Your task to perform on an android device: Do I have any events this weekend? Image 0: 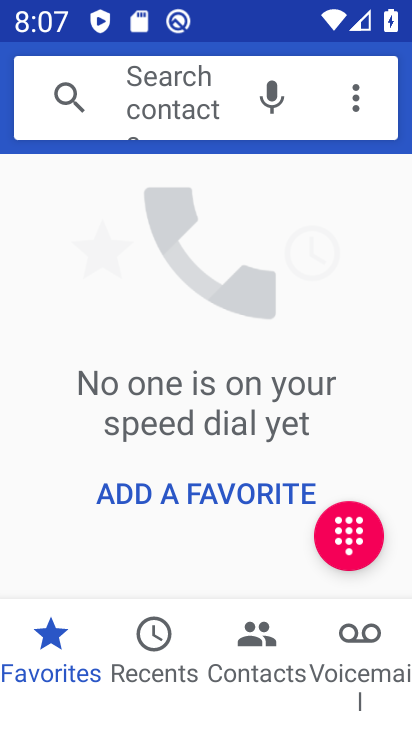
Step 0: press home button
Your task to perform on an android device: Do I have any events this weekend? Image 1: 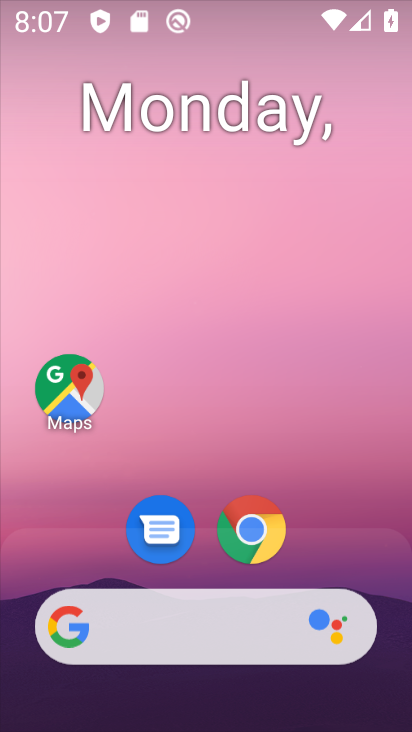
Step 1: drag from (208, 612) to (126, 31)
Your task to perform on an android device: Do I have any events this weekend? Image 2: 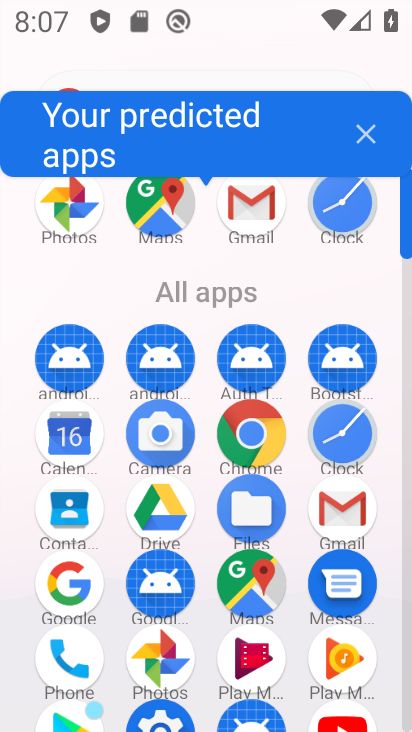
Step 2: click (69, 429)
Your task to perform on an android device: Do I have any events this weekend? Image 3: 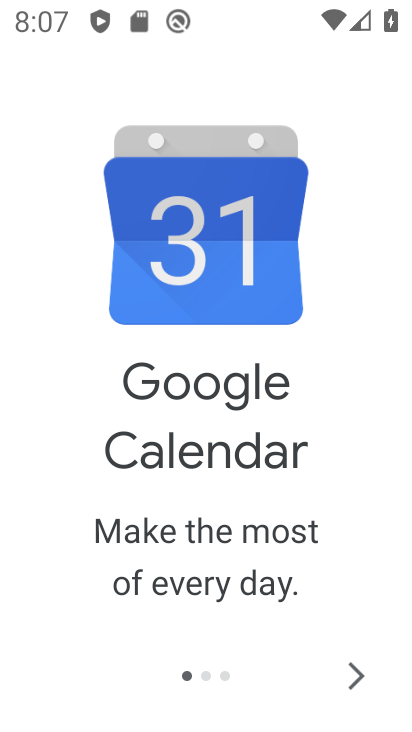
Step 3: click (360, 687)
Your task to perform on an android device: Do I have any events this weekend? Image 4: 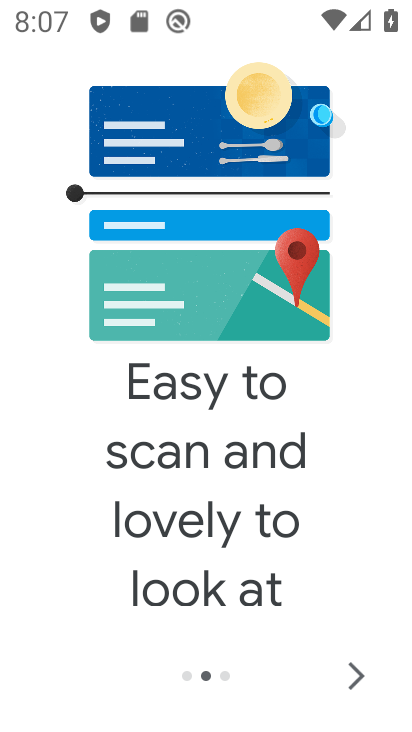
Step 4: click (360, 687)
Your task to perform on an android device: Do I have any events this weekend? Image 5: 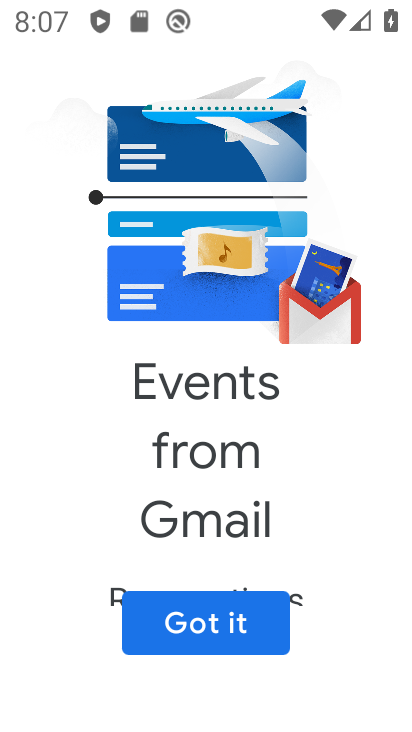
Step 5: click (188, 618)
Your task to perform on an android device: Do I have any events this weekend? Image 6: 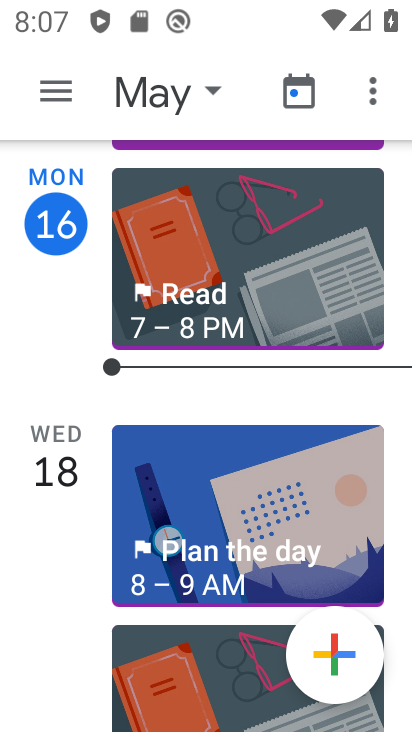
Step 6: click (38, 113)
Your task to perform on an android device: Do I have any events this weekend? Image 7: 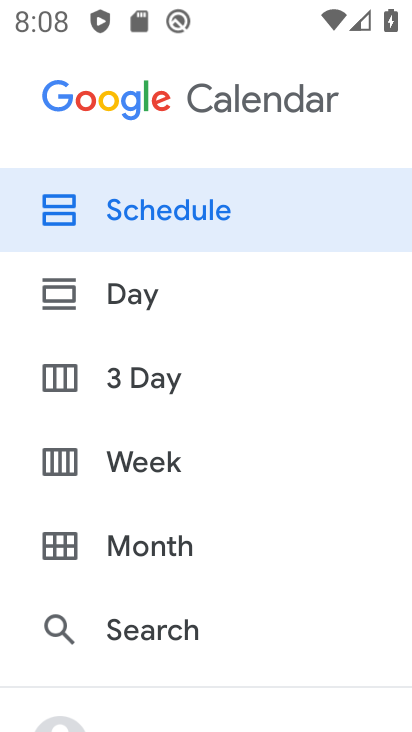
Step 7: click (145, 458)
Your task to perform on an android device: Do I have any events this weekend? Image 8: 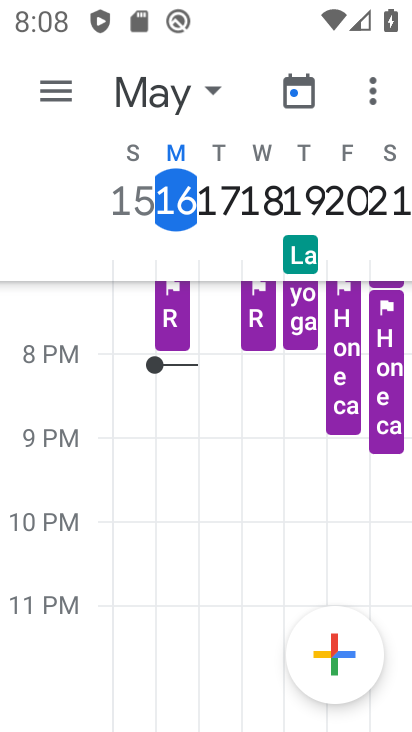
Step 8: task complete